Your task to perform on an android device: Show me the alarms in the clock app Image 0: 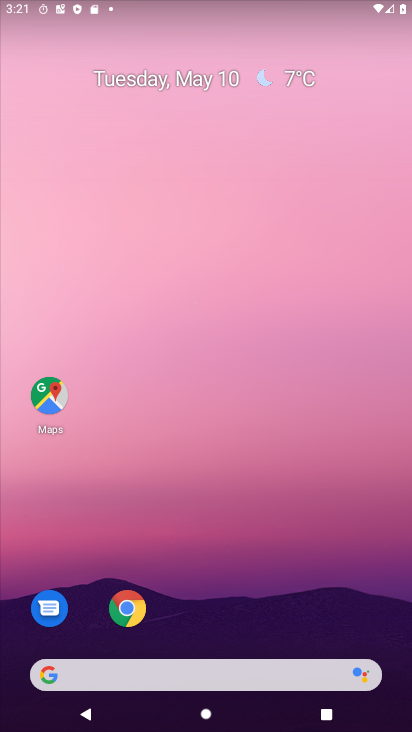
Step 0: drag from (371, 628) to (365, 38)
Your task to perform on an android device: Show me the alarms in the clock app Image 1: 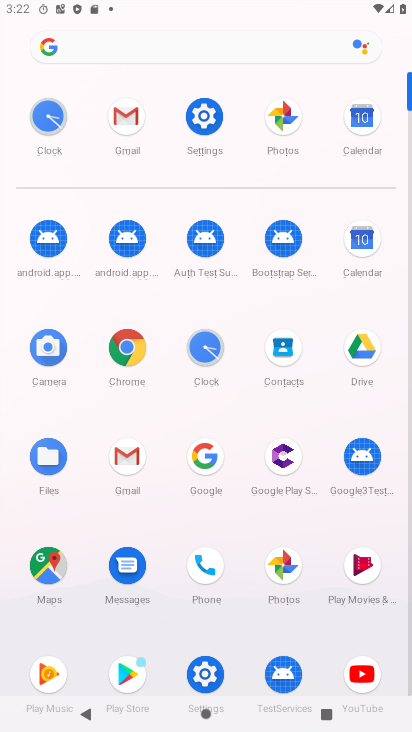
Step 1: click (45, 119)
Your task to perform on an android device: Show me the alarms in the clock app Image 2: 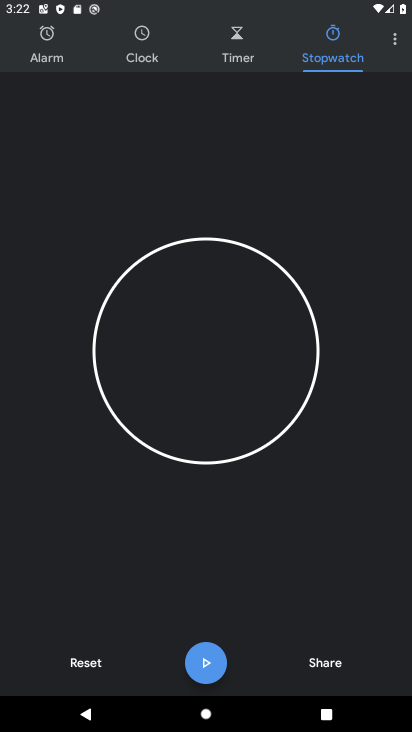
Step 2: click (47, 49)
Your task to perform on an android device: Show me the alarms in the clock app Image 3: 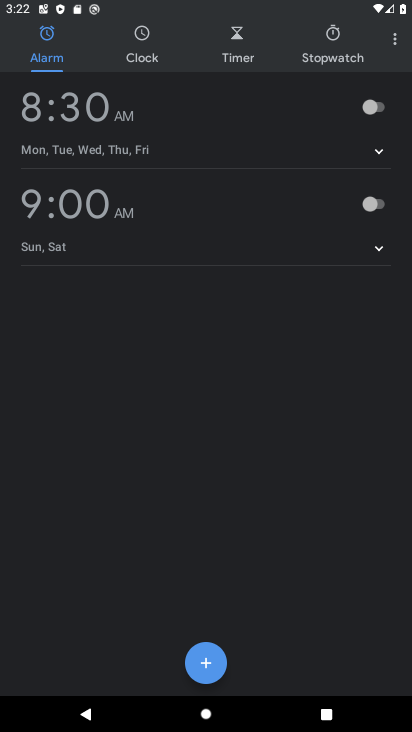
Step 3: task complete